Your task to perform on an android device: turn off airplane mode Image 0: 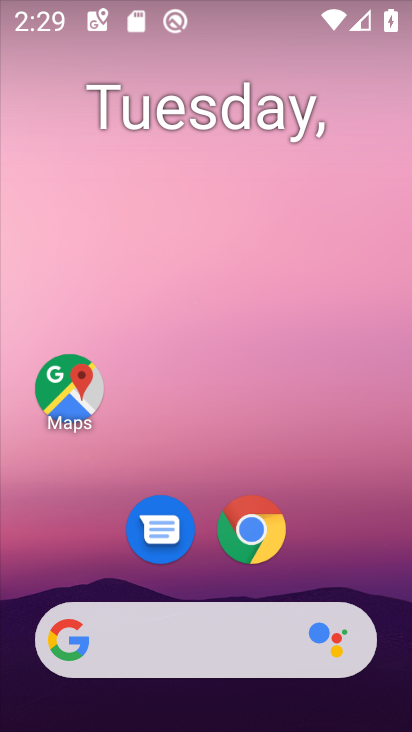
Step 0: drag from (337, 506) to (318, 174)
Your task to perform on an android device: turn off airplane mode Image 1: 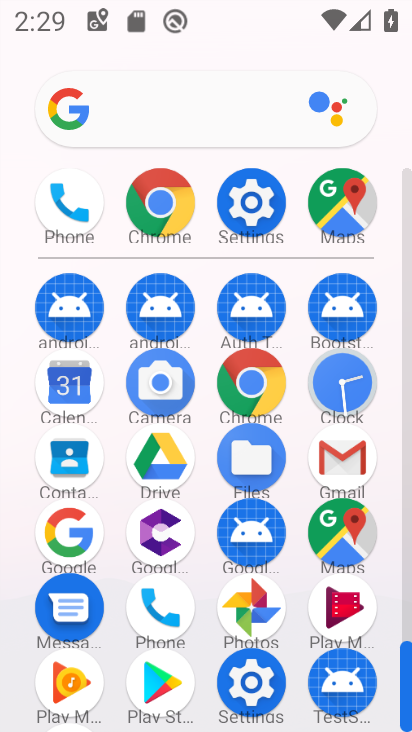
Step 1: click (235, 199)
Your task to perform on an android device: turn off airplane mode Image 2: 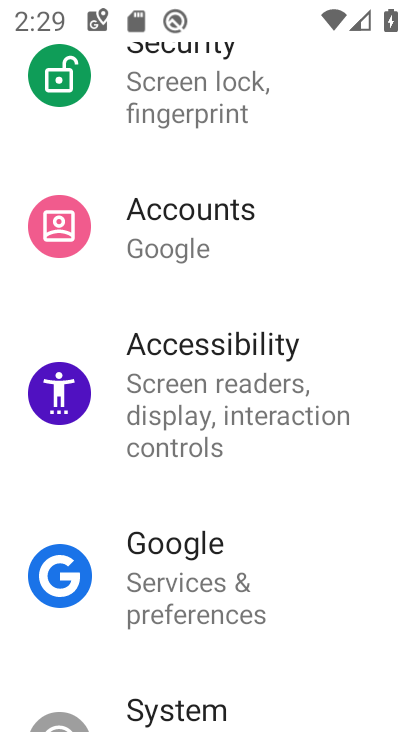
Step 2: drag from (244, 117) to (244, 560)
Your task to perform on an android device: turn off airplane mode Image 3: 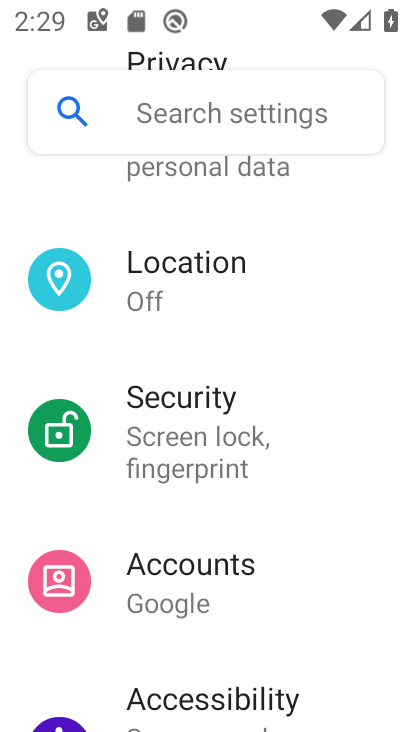
Step 3: drag from (263, 223) to (235, 591)
Your task to perform on an android device: turn off airplane mode Image 4: 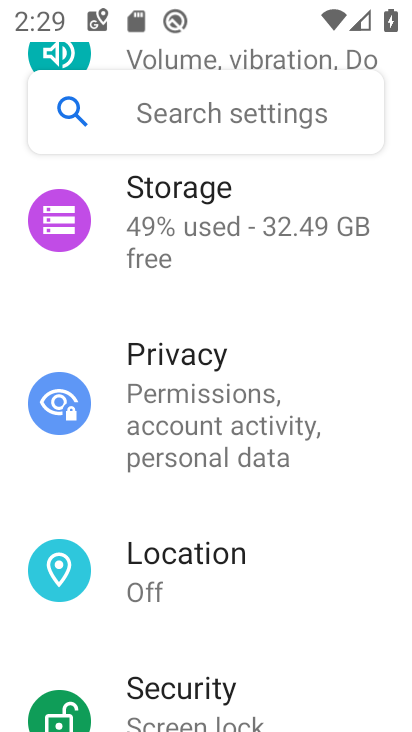
Step 4: drag from (189, 231) to (213, 613)
Your task to perform on an android device: turn off airplane mode Image 5: 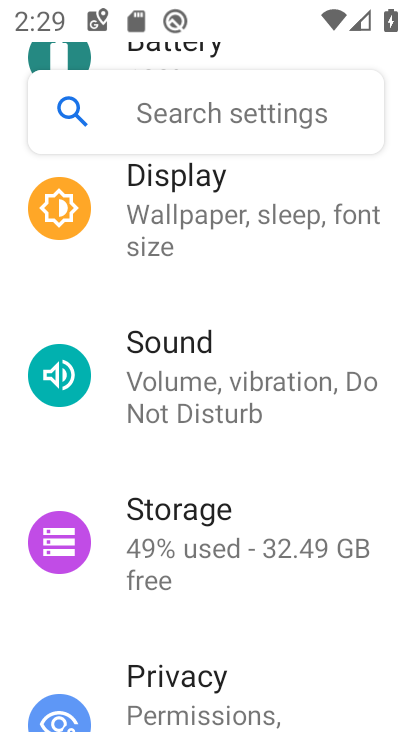
Step 5: drag from (174, 192) to (178, 475)
Your task to perform on an android device: turn off airplane mode Image 6: 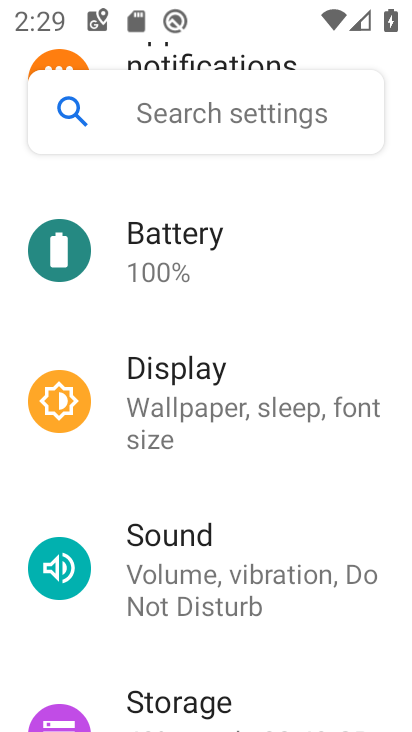
Step 6: drag from (244, 224) to (245, 578)
Your task to perform on an android device: turn off airplane mode Image 7: 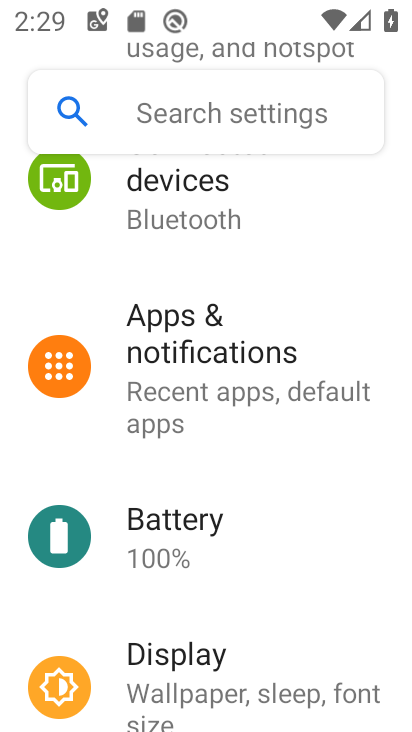
Step 7: drag from (272, 478) to (280, 599)
Your task to perform on an android device: turn off airplane mode Image 8: 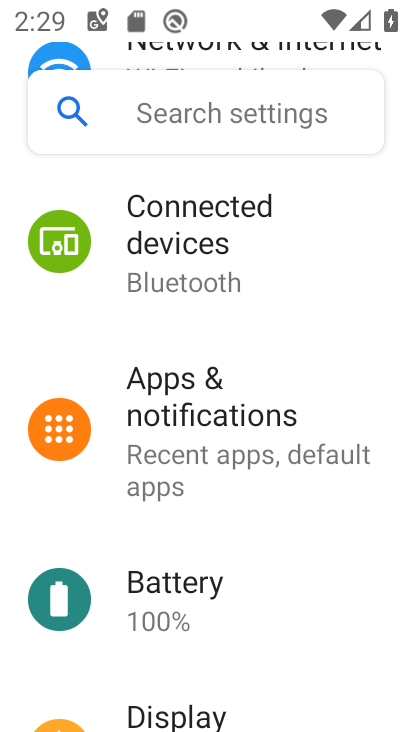
Step 8: drag from (221, 266) to (219, 646)
Your task to perform on an android device: turn off airplane mode Image 9: 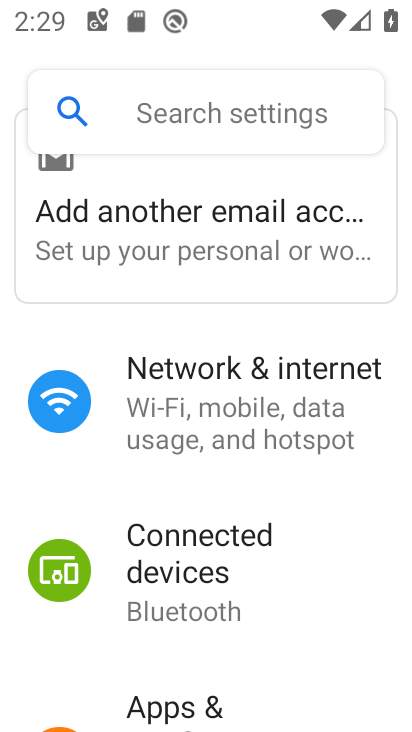
Step 9: click (254, 395)
Your task to perform on an android device: turn off airplane mode Image 10: 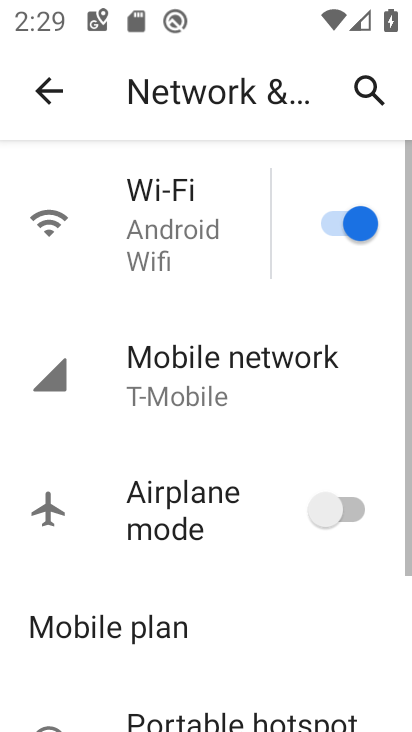
Step 10: click (340, 507)
Your task to perform on an android device: turn off airplane mode Image 11: 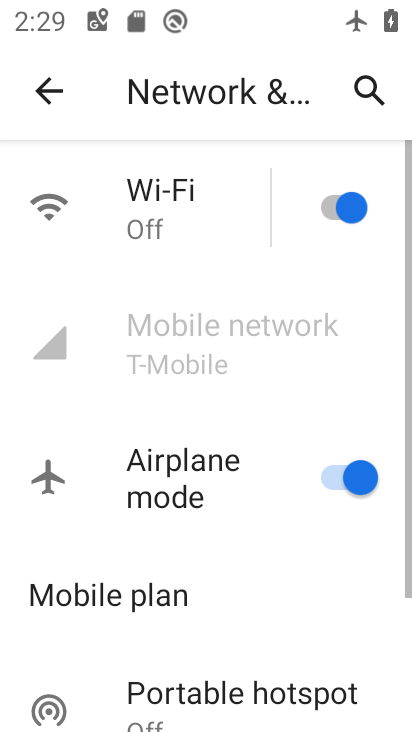
Step 11: click (336, 503)
Your task to perform on an android device: turn off airplane mode Image 12: 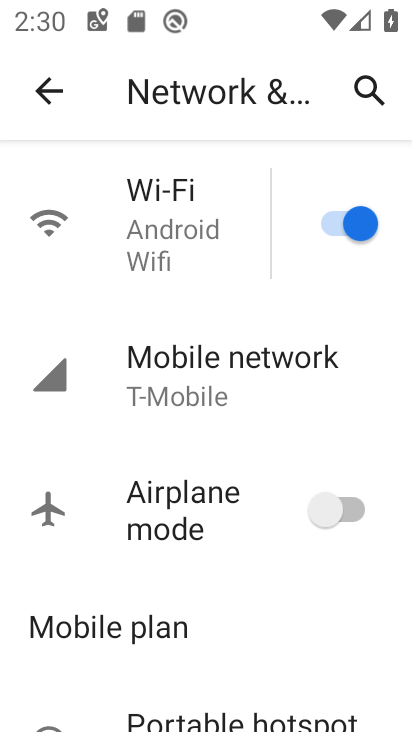
Step 12: task complete